Your task to perform on an android device: Open the stopwatch Image 0: 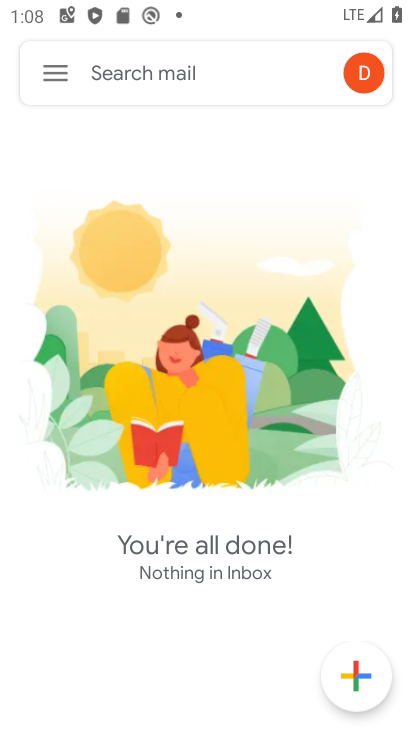
Step 0: press home button
Your task to perform on an android device: Open the stopwatch Image 1: 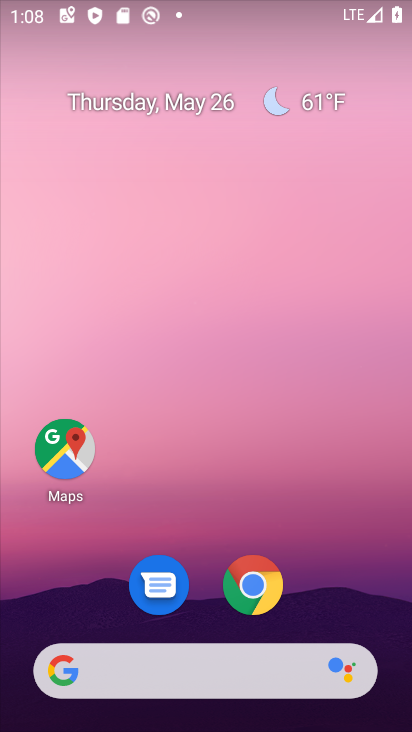
Step 1: drag from (273, 477) to (303, 35)
Your task to perform on an android device: Open the stopwatch Image 2: 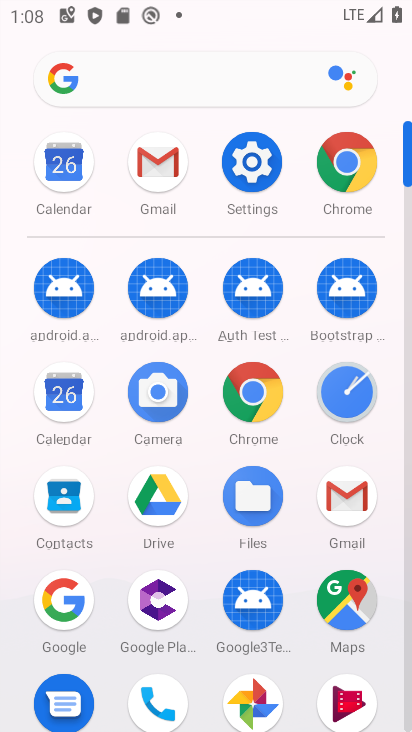
Step 2: click (350, 396)
Your task to perform on an android device: Open the stopwatch Image 3: 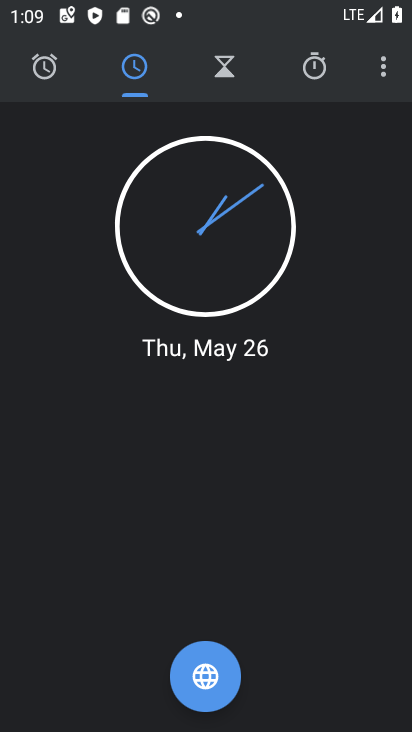
Step 3: click (316, 68)
Your task to perform on an android device: Open the stopwatch Image 4: 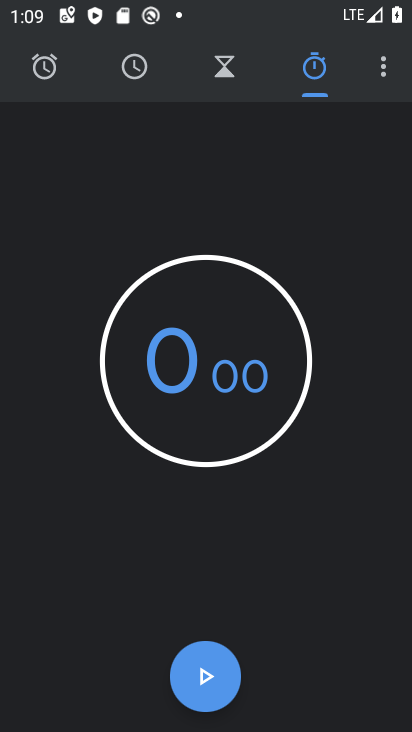
Step 4: task complete